Your task to perform on an android device: Search for pizza restaurants on Maps Image 0: 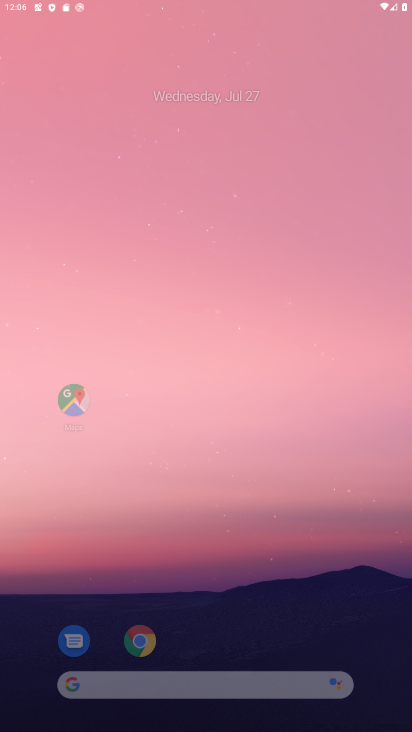
Step 0: click (273, 8)
Your task to perform on an android device: Search for pizza restaurants on Maps Image 1: 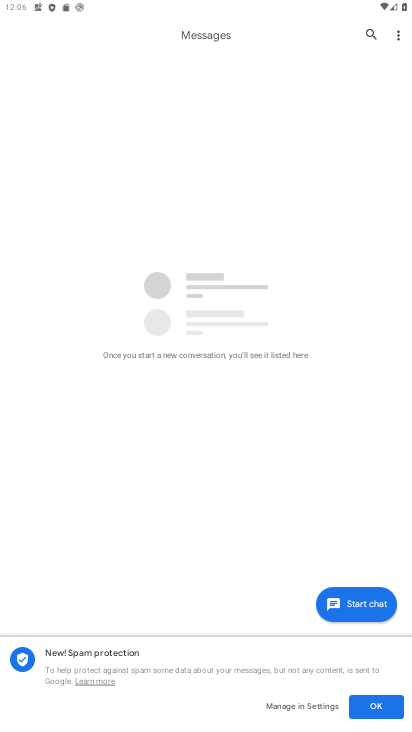
Step 1: press home button
Your task to perform on an android device: Search for pizza restaurants on Maps Image 2: 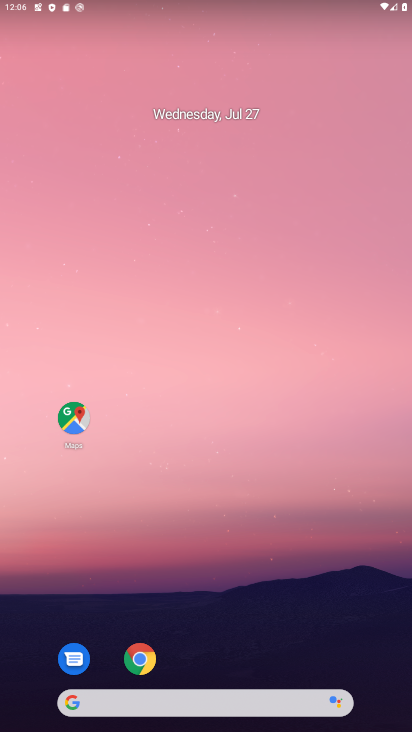
Step 2: drag from (196, 666) to (210, 2)
Your task to perform on an android device: Search for pizza restaurants on Maps Image 3: 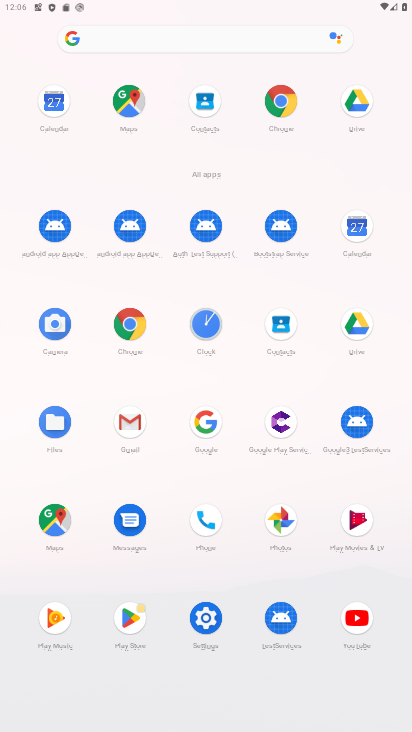
Step 3: click (53, 520)
Your task to perform on an android device: Search for pizza restaurants on Maps Image 4: 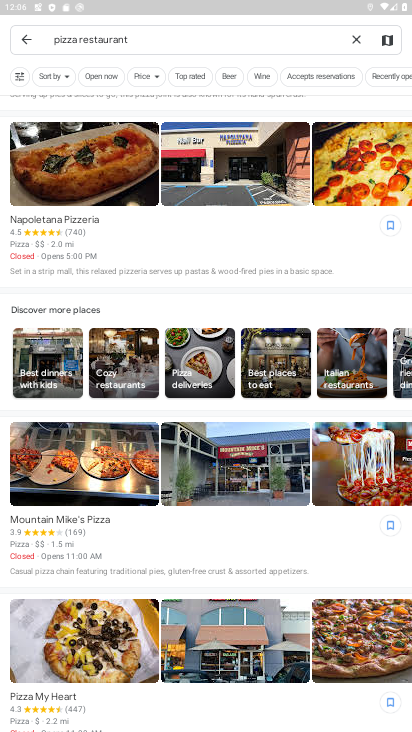
Step 4: task complete